Your task to perform on an android device: Open Google Chrome and click the shortcut for Amazon.com Image 0: 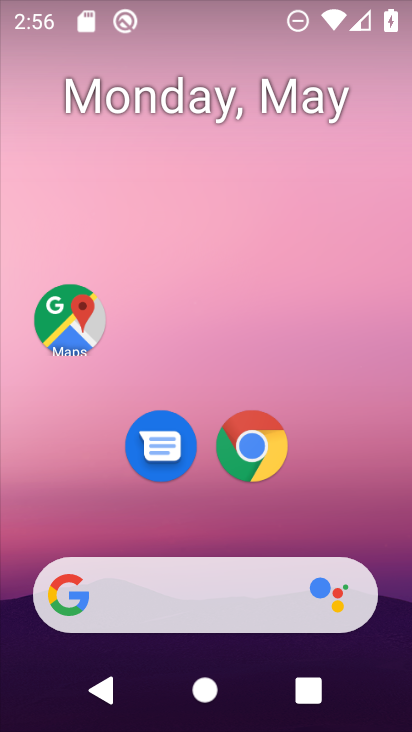
Step 0: click (254, 436)
Your task to perform on an android device: Open Google Chrome and click the shortcut for Amazon.com Image 1: 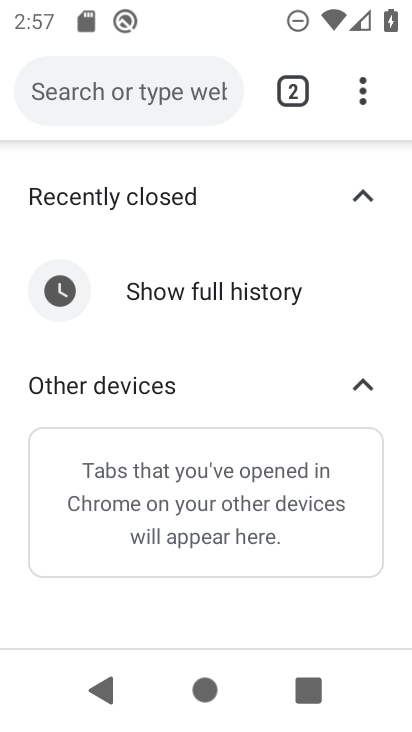
Step 1: click (368, 103)
Your task to perform on an android device: Open Google Chrome and click the shortcut for Amazon.com Image 2: 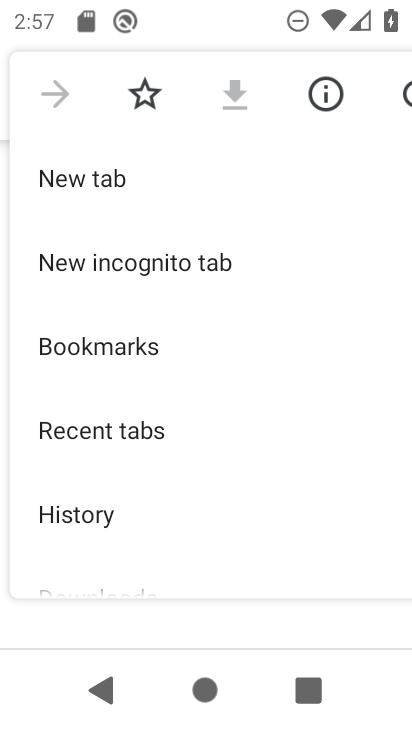
Step 2: drag from (128, 549) to (201, 265)
Your task to perform on an android device: Open Google Chrome and click the shortcut for Amazon.com Image 3: 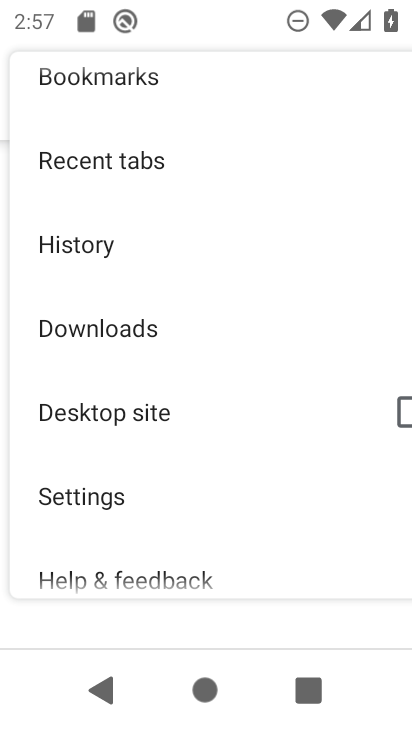
Step 3: drag from (149, 145) to (169, 655)
Your task to perform on an android device: Open Google Chrome and click the shortcut for Amazon.com Image 4: 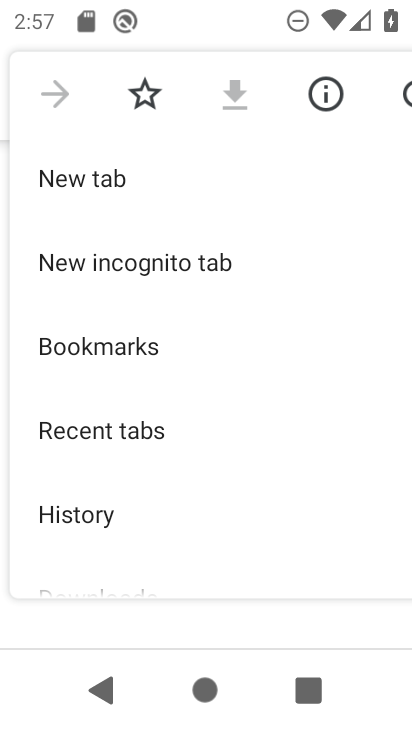
Step 4: click (88, 194)
Your task to perform on an android device: Open Google Chrome and click the shortcut for Amazon.com Image 5: 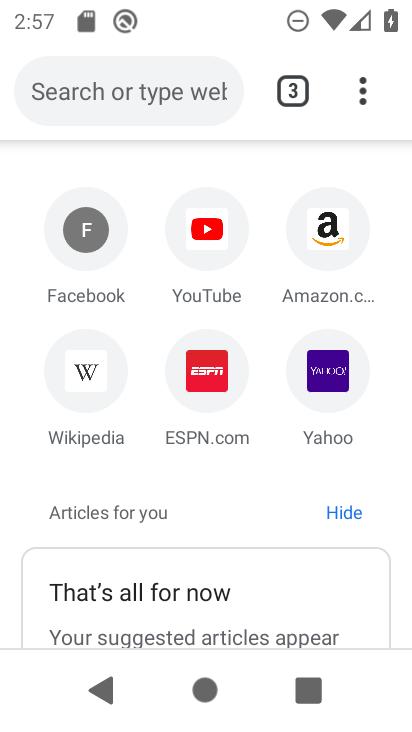
Step 5: click (313, 243)
Your task to perform on an android device: Open Google Chrome and click the shortcut for Amazon.com Image 6: 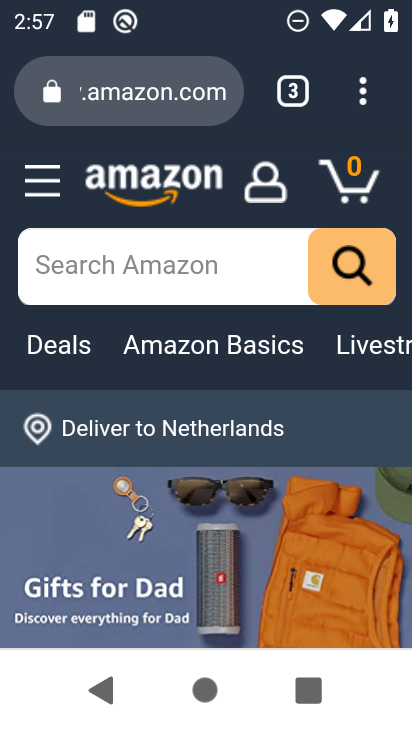
Step 6: task complete